Your task to perform on an android device: open a bookmark in the chrome app Image 0: 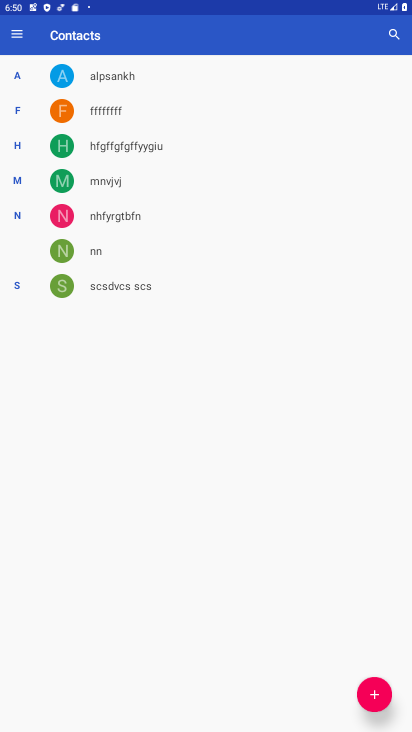
Step 0: press home button
Your task to perform on an android device: open a bookmark in the chrome app Image 1: 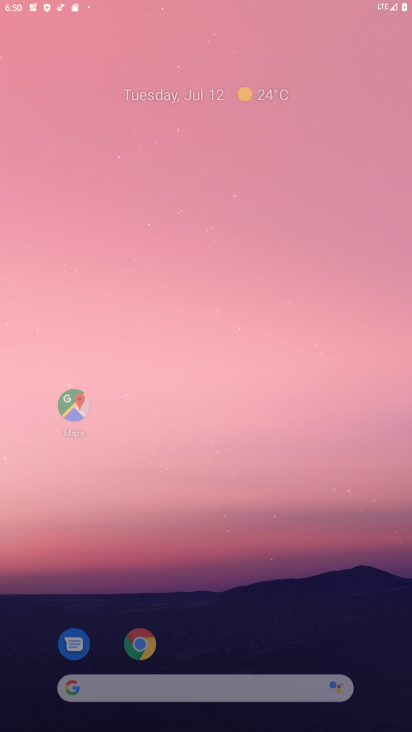
Step 1: drag from (363, 647) to (261, 21)
Your task to perform on an android device: open a bookmark in the chrome app Image 2: 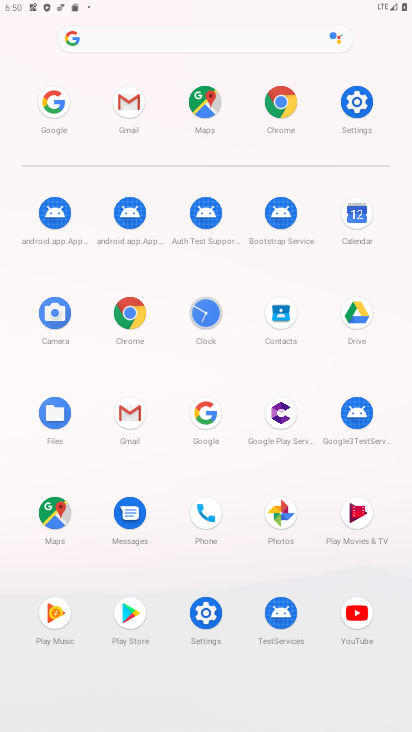
Step 2: click (288, 95)
Your task to perform on an android device: open a bookmark in the chrome app Image 3: 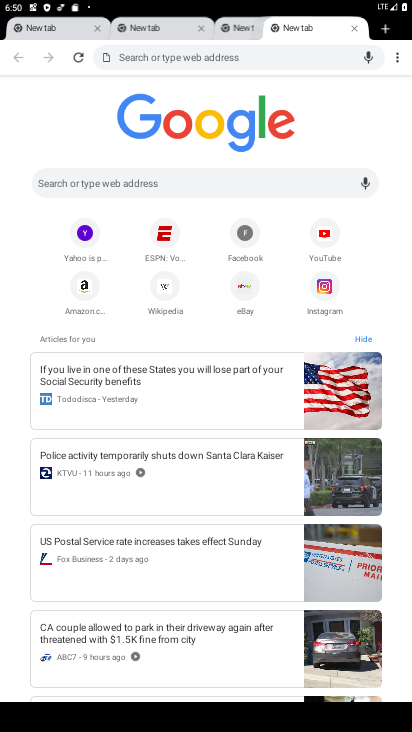
Step 3: click (396, 50)
Your task to perform on an android device: open a bookmark in the chrome app Image 4: 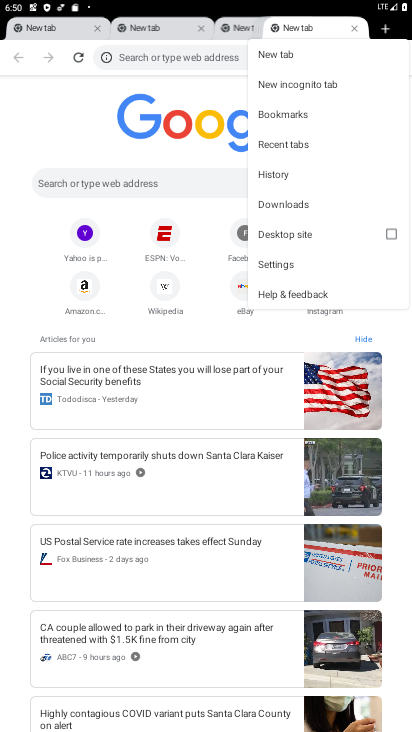
Step 4: click (282, 119)
Your task to perform on an android device: open a bookmark in the chrome app Image 5: 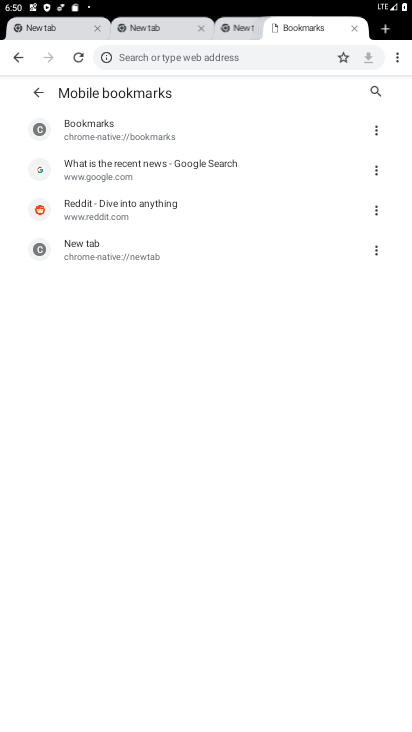
Step 5: task complete